Your task to perform on an android device: toggle translation in the chrome app Image 0: 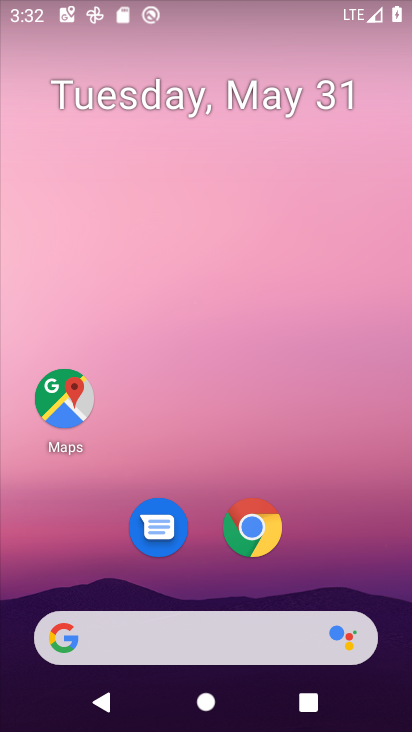
Step 0: drag from (344, 520) to (284, 33)
Your task to perform on an android device: toggle translation in the chrome app Image 1: 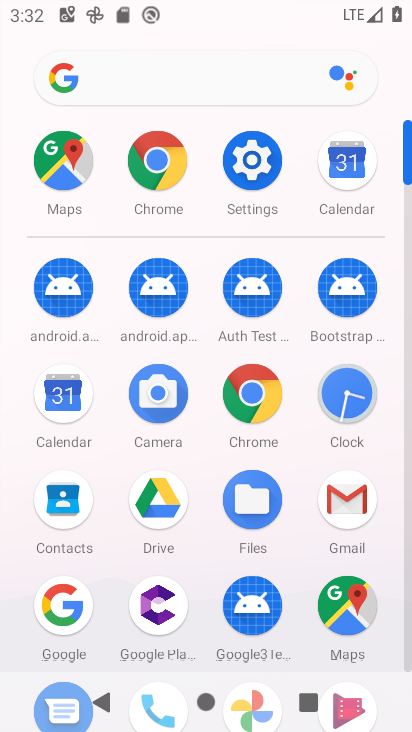
Step 1: click (153, 158)
Your task to perform on an android device: toggle translation in the chrome app Image 2: 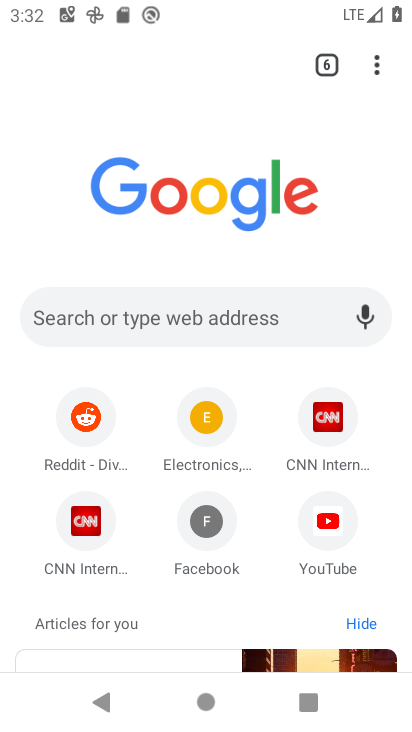
Step 2: drag from (382, 63) to (161, 564)
Your task to perform on an android device: toggle translation in the chrome app Image 3: 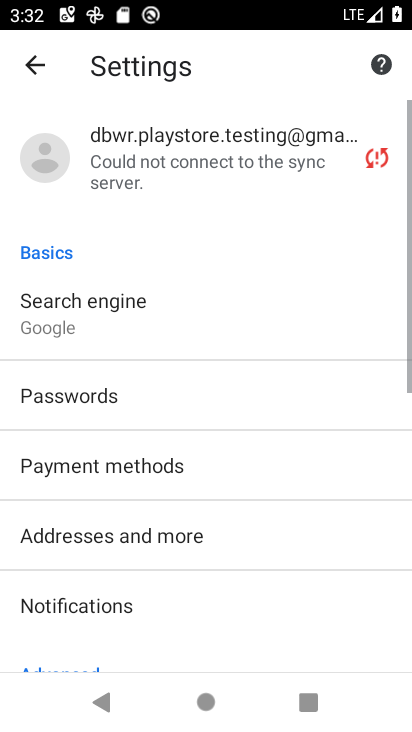
Step 3: drag from (154, 569) to (202, 126)
Your task to perform on an android device: toggle translation in the chrome app Image 4: 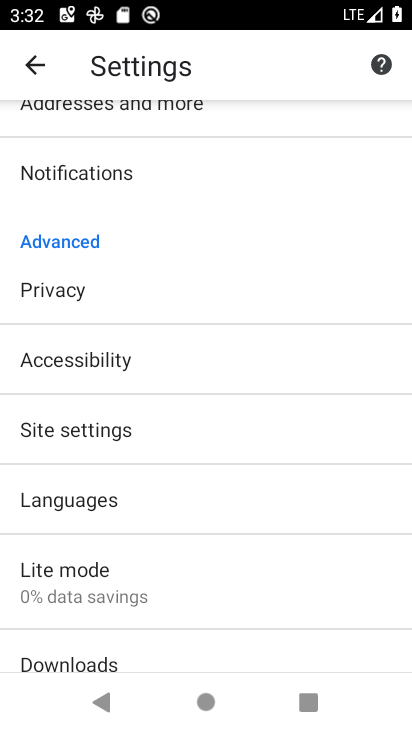
Step 4: drag from (163, 571) to (222, 82)
Your task to perform on an android device: toggle translation in the chrome app Image 5: 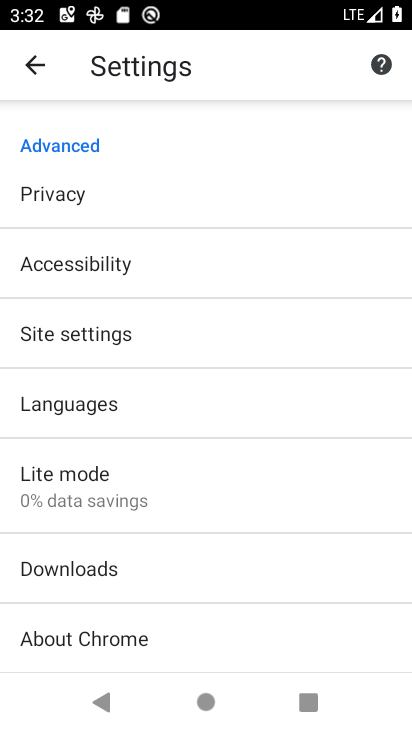
Step 5: drag from (158, 567) to (153, 234)
Your task to perform on an android device: toggle translation in the chrome app Image 6: 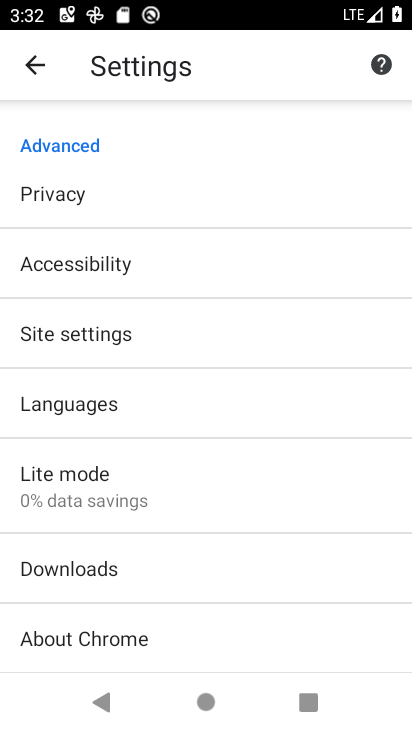
Step 6: click (176, 403)
Your task to perform on an android device: toggle translation in the chrome app Image 7: 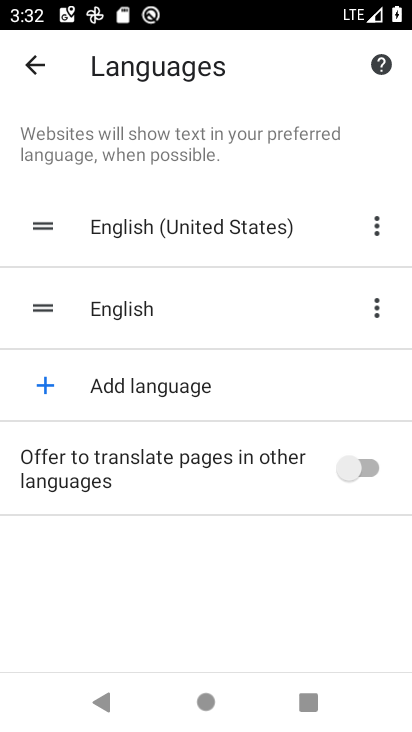
Step 7: click (365, 478)
Your task to perform on an android device: toggle translation in the chrome app Image 8: 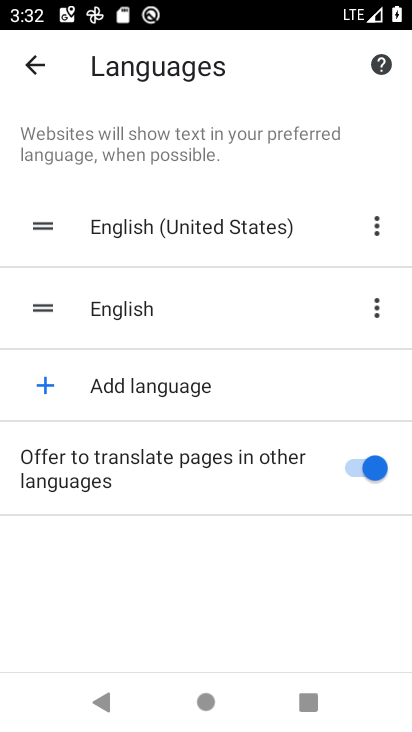
Step 8: task complete